Your task to perform on an android device: Go to eBay Image 0: 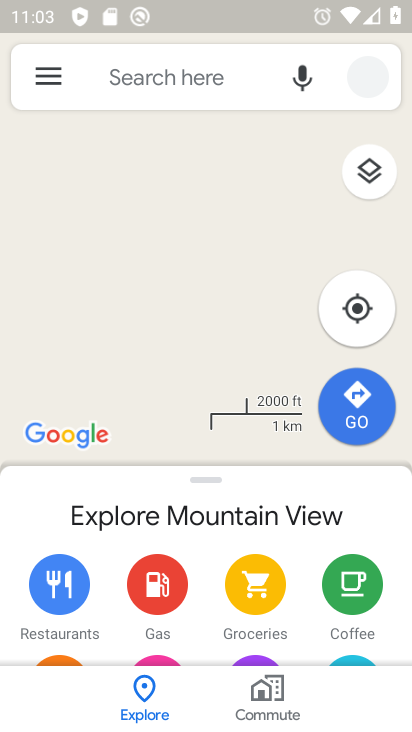
Step 0: press home button
Your task to perform on an android device: Go to eBay Image 1: 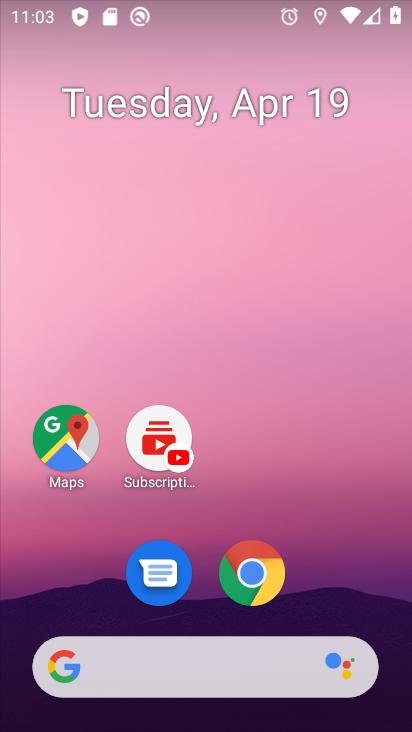
Step 1: click (243, 570)
Your task to perform on an android device: Go to eBay Image 2: 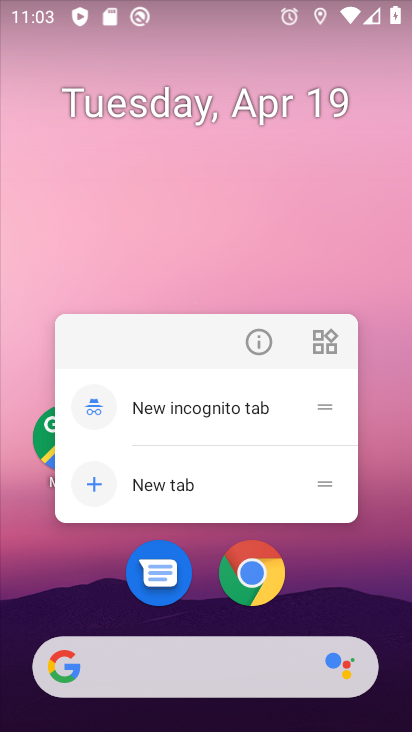
Step 2: click (247, 570)
Your task to perform on an android device: Go to eBay Image 3: 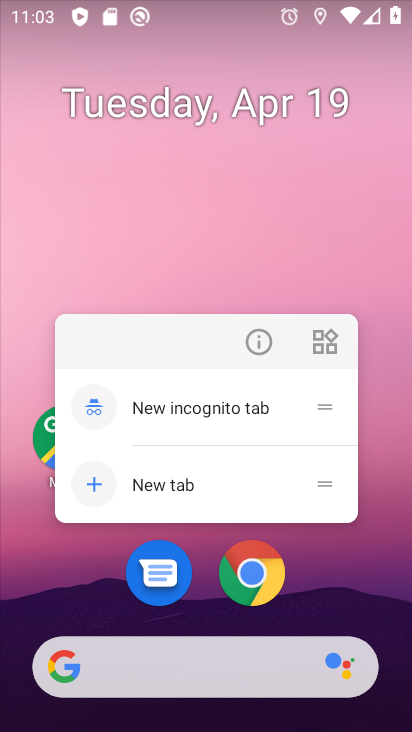
Step 3: click (255, 570)
Your task to perform on an android device: Go to eBay Image 4: 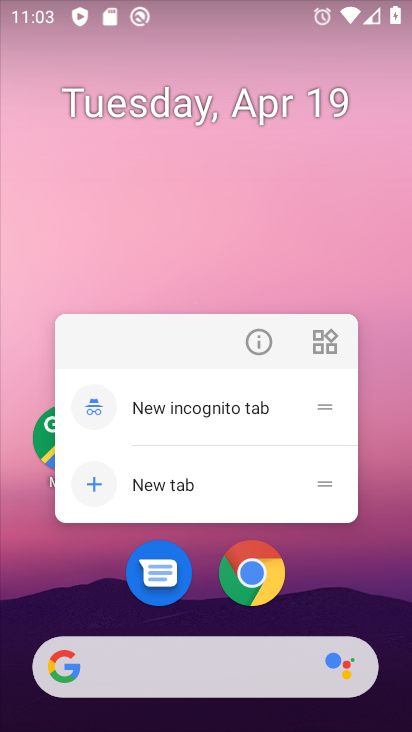
Step 4: click (255, 570)
Your task to perform on an android device: Go to eBay Image 5: 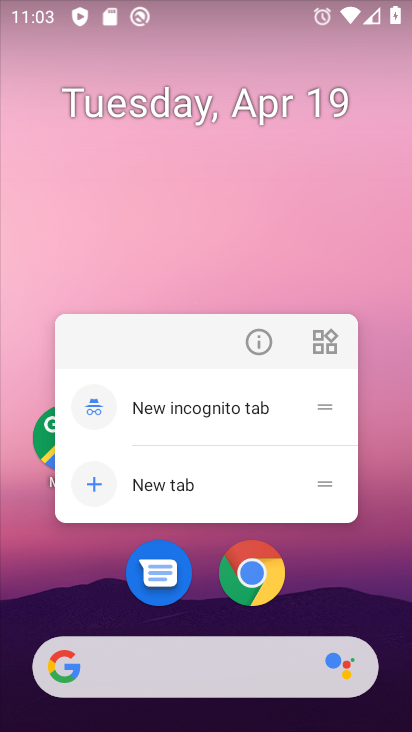
Step 5: click (252, 578)
Your task to perform on an android device: Go to eBay Image 6: 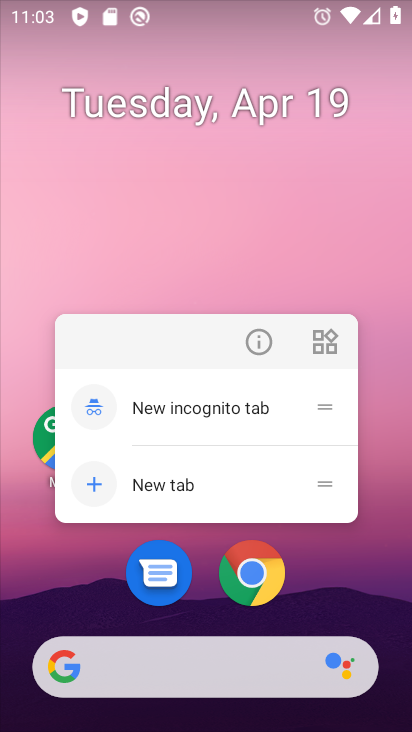
Step 6: click (252, 578)
Your task to perform on an android device: Go to eBay Image 7: 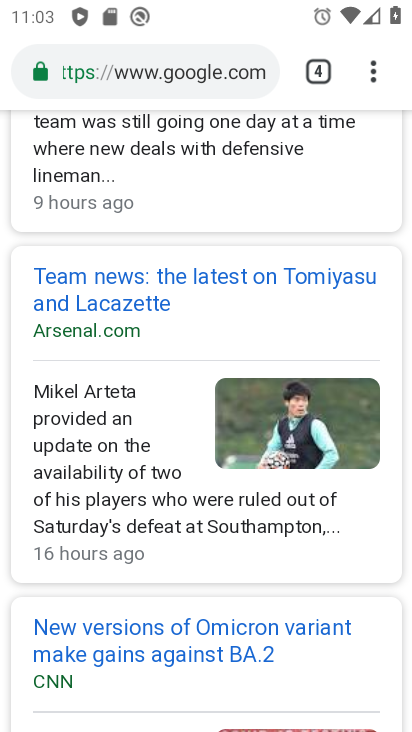
Step 7: click (314, 69)
Your task to perform on an android device: Go to eBay Image 8: 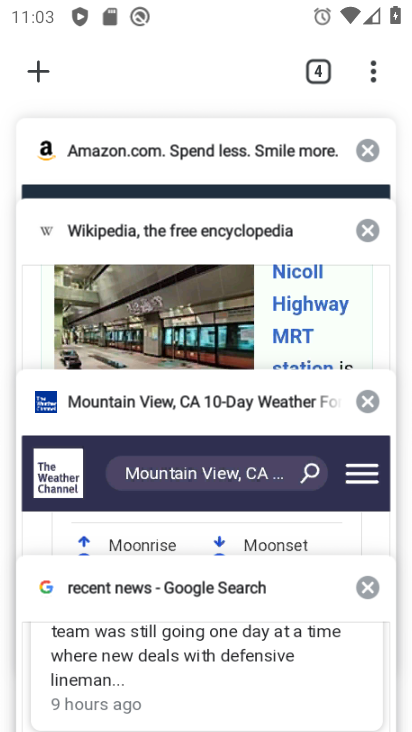
Step 8: click (40, 67)
Your task to perform on an android device: Go to eBay Image 9: 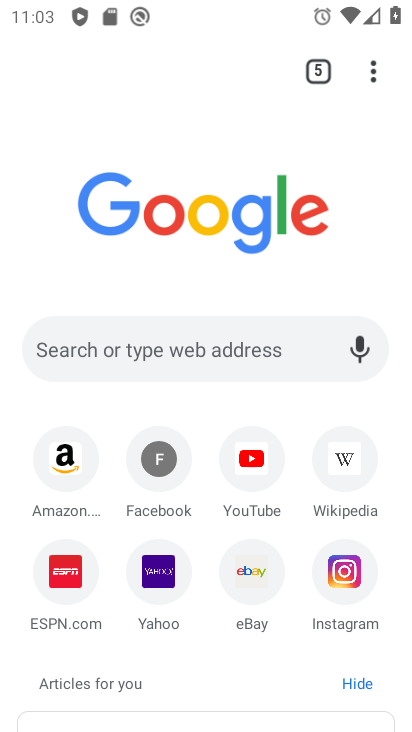
Step 9: click (254, 578)
Your task to perform on an android device: Go to eBay Image 10: 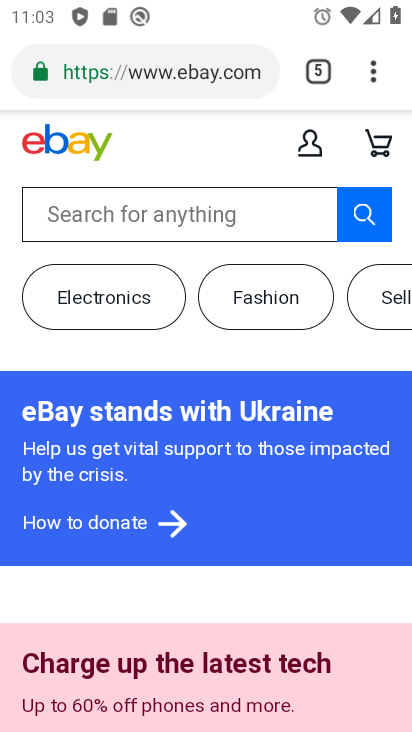
Step 10: task complete